Your task to perform on an android device: clear history in the chrome app Image 0: 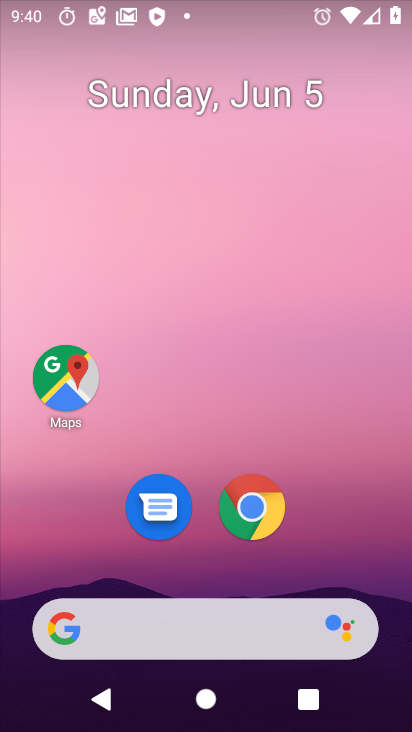
Step 0: drag from (225, 658) to (249, 243)
Your task to perform on an android device: clear history in the chrome app Image 1: 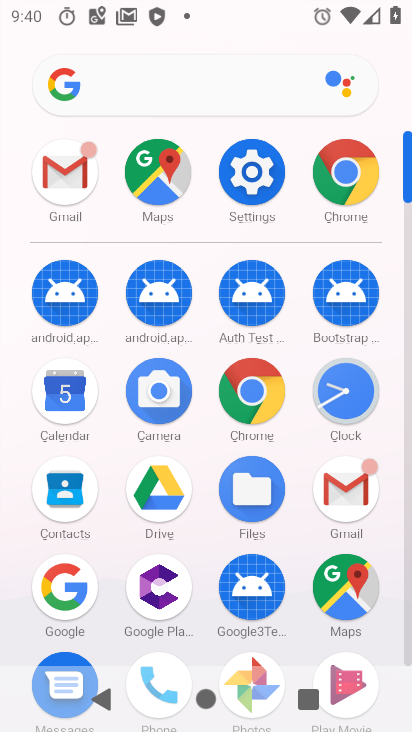
Step 1: click (342, 183)
Your task to perform on an android device: clear history in the chrome app Image 2: 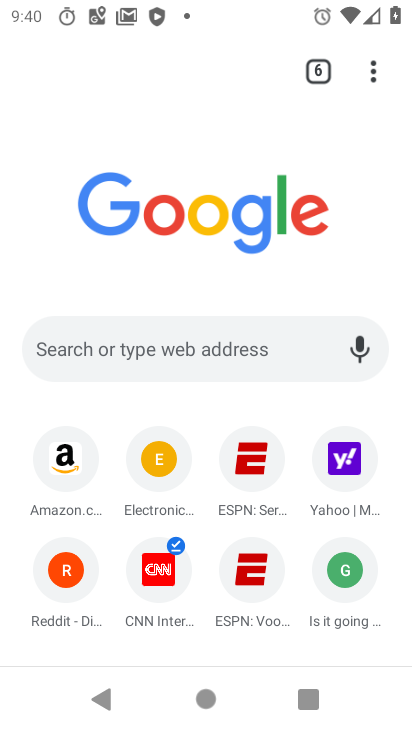
Step 2: click (368, 76)
Your task to perform on an android device: clear history in the chrome app Image 3: 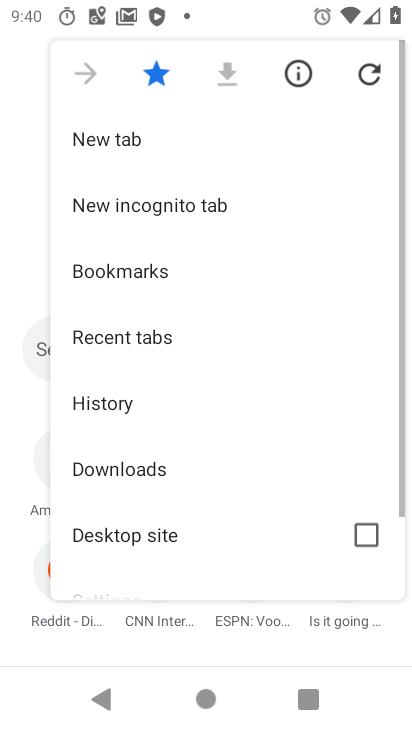
Step 3: drag from (109, 510) to (197, 280)
Your task to perform on an android device: clear history in the chrome app Image 4: 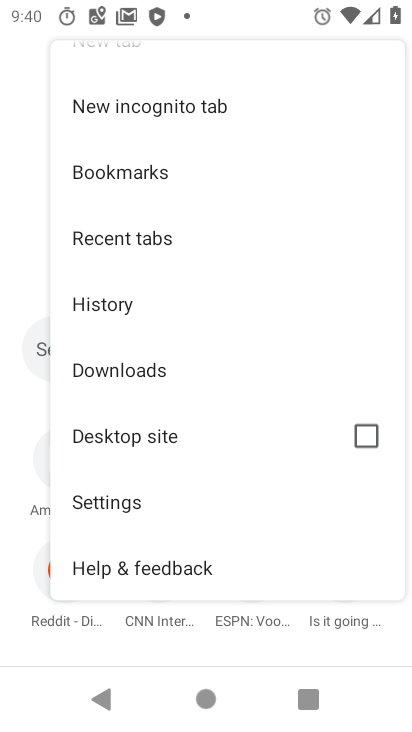
Step 4: click (140, 502)
Your task to perform on an android device: clear history in the chrome app Image 5: 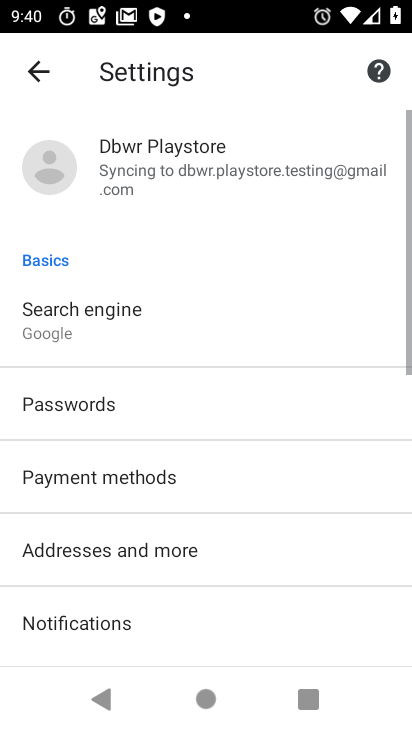
Step 5: drag from (152, 554) to (232, 301)
Your task to perform on an android device: clear history in the chrome app Image 6: 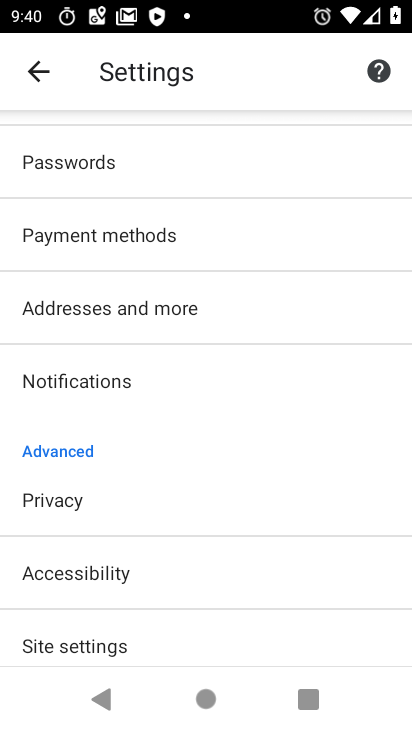
Step 6: click (46, 499)
Your task to perform on an android device: clear history in the chrome app Image 7: 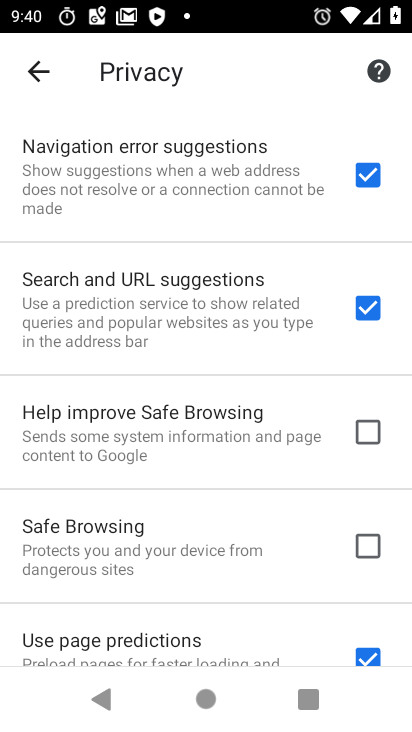
Step 7: drag from (146, 633) to (225, 289)
Your task to perform on an android device: clear history in the chrome app Image 8: 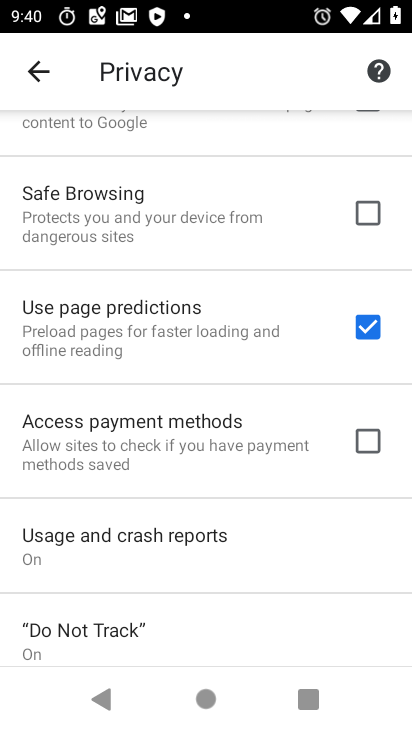
Step 8: drag from (183, 534) to (235, 237)
Your task to perform on an android device: clear history in the chrome app Image 9: 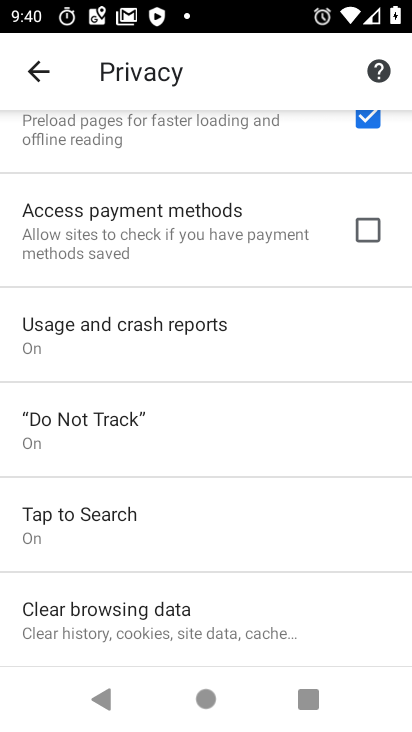
Step 9: click (165, 611)
Your task to perform on an android device: clear history in the chrome app Image 10: 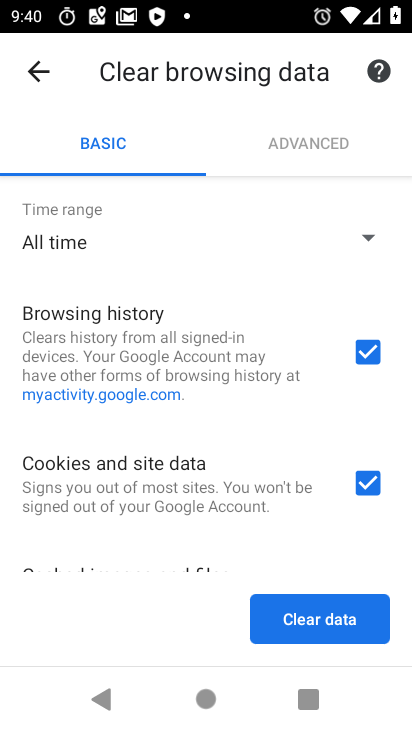
Step 10: click (207, 456)
Your task to perform on an android device: clear history in the chrome app Image 11: 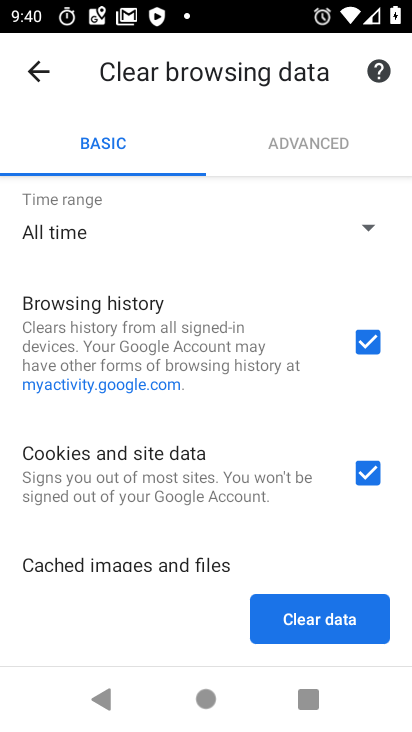
Step 11: click (308, 623)
Your task to perform on an android device: clear history in the chrome app Image 12: 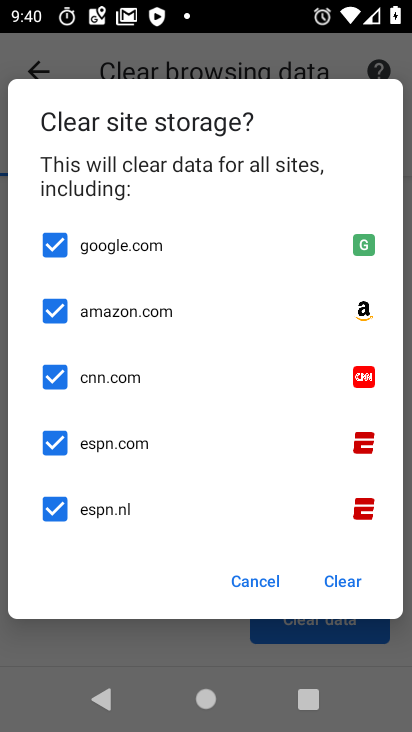
Step 12: task complete